Your task to perform on an android device: Open Google Chrome and open the bookmarks view Image 0: 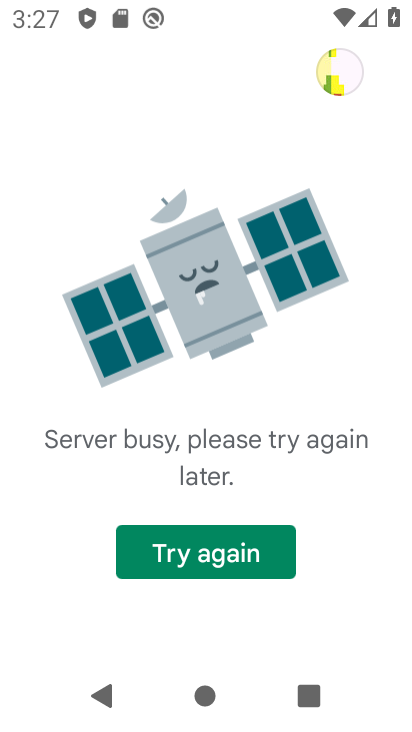
Step 0: press home button
Your task to perform on an android device: Open Google Chrome and open the bookmarks view Image 1: 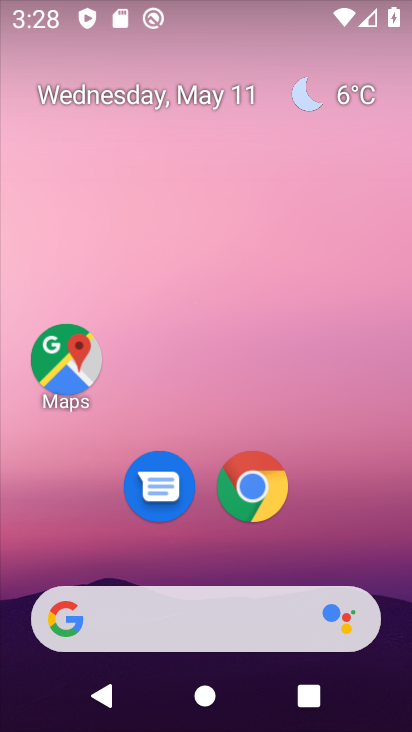
Step 1: click (269, 487)
Your task to perform on an android device: Open Google Chrome and open the bookmarks view Image 2: 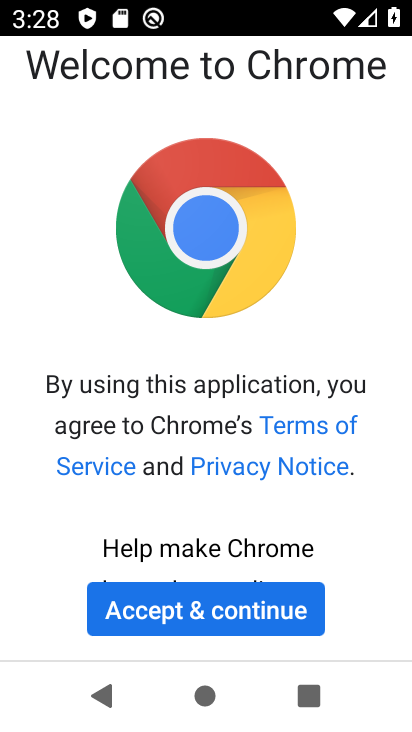
Step 2: click (224, 614)
Your task to perform on an android device: Open Google Chrome and open the bookmarks view Image 3: 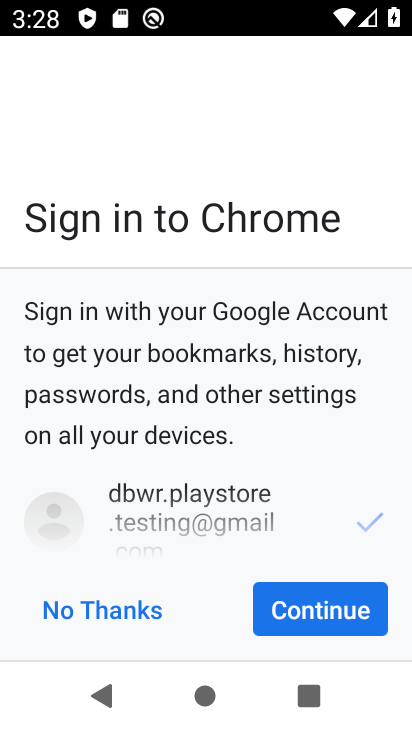
Step 3: click (332, 612)
Your task to perform on an android device: Open Google Chrome and open the bookmarks view Image 4: 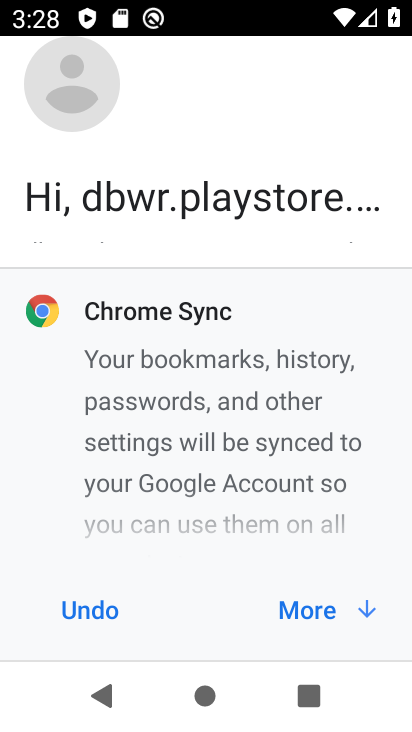
Step 4: click (332, 612)
Your task to perform on an android device: Open Google Chrome and open the bookmarks view Image 5: 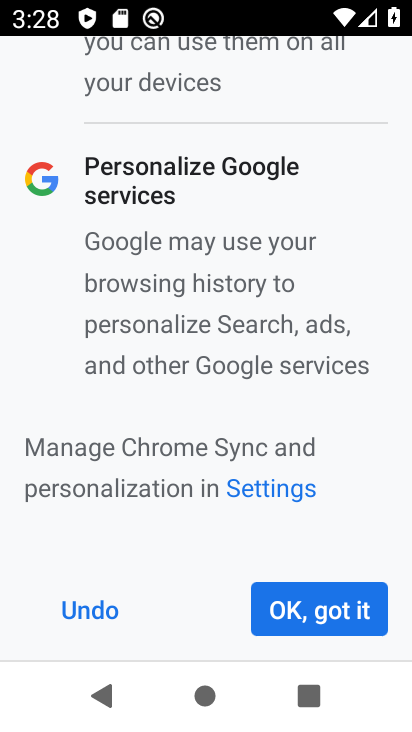
Step 5: click (332, 612)
Your task to perform on an android device: Open Google Chrome and open the bookmarks view Image 6: 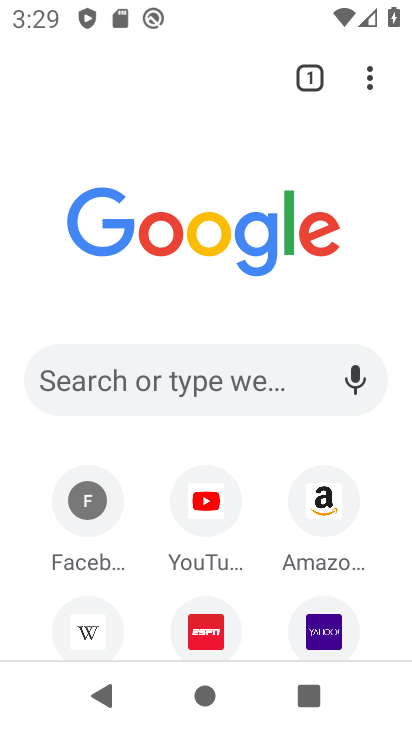
Step 6: task complete